Your task to perform on an android device: star an email in the gmail app Image 0: 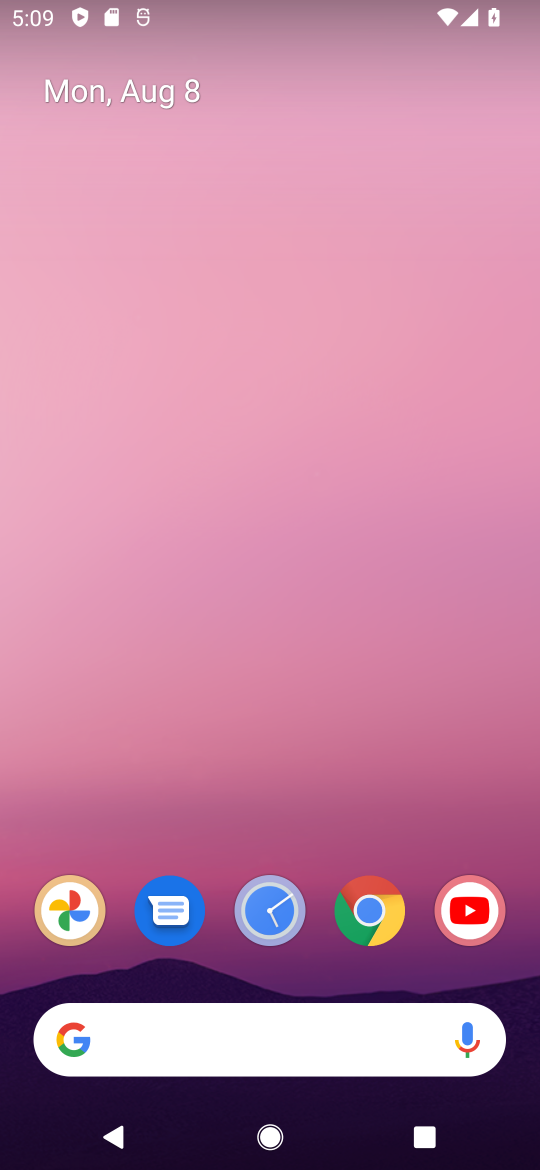
Step 0: drag from (220, 1034) to (229, 442)
Your task to perform on an android device: star an email in the gmail app Image 1: 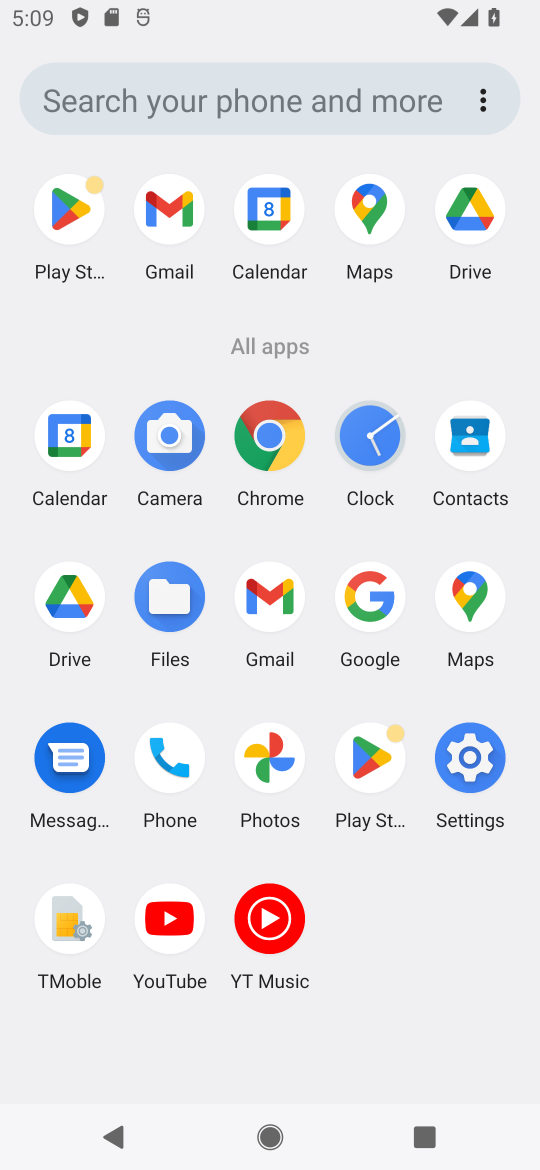
Step 1: click (167, 212)
Your task to perform on an android device: star an email in the gmail app Image 2: 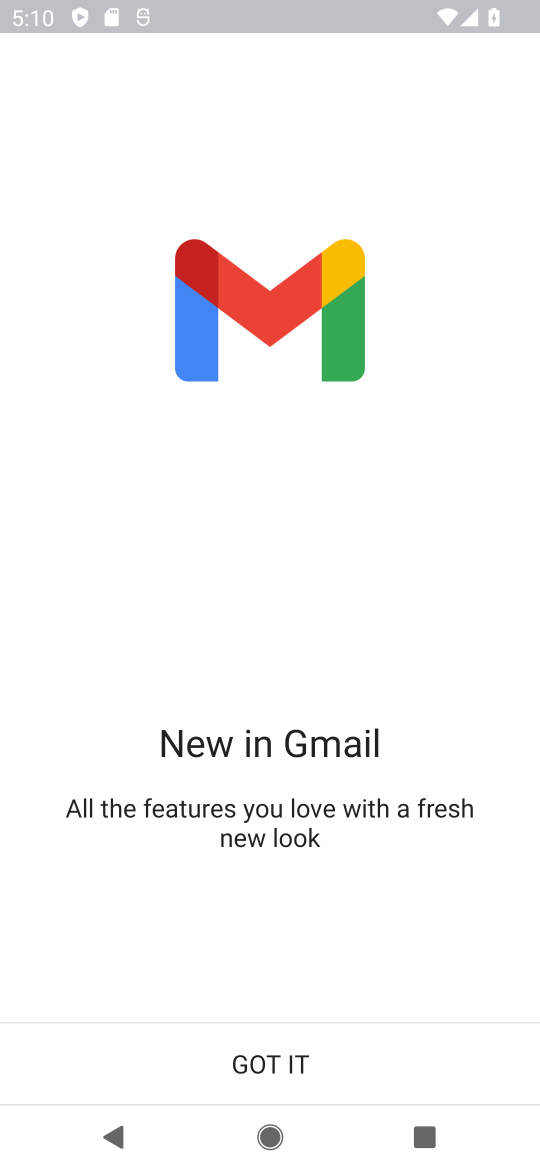
Step 2: click (290, 1059)
Your task to perform on an android device: star an email in the gmail app Image 3: 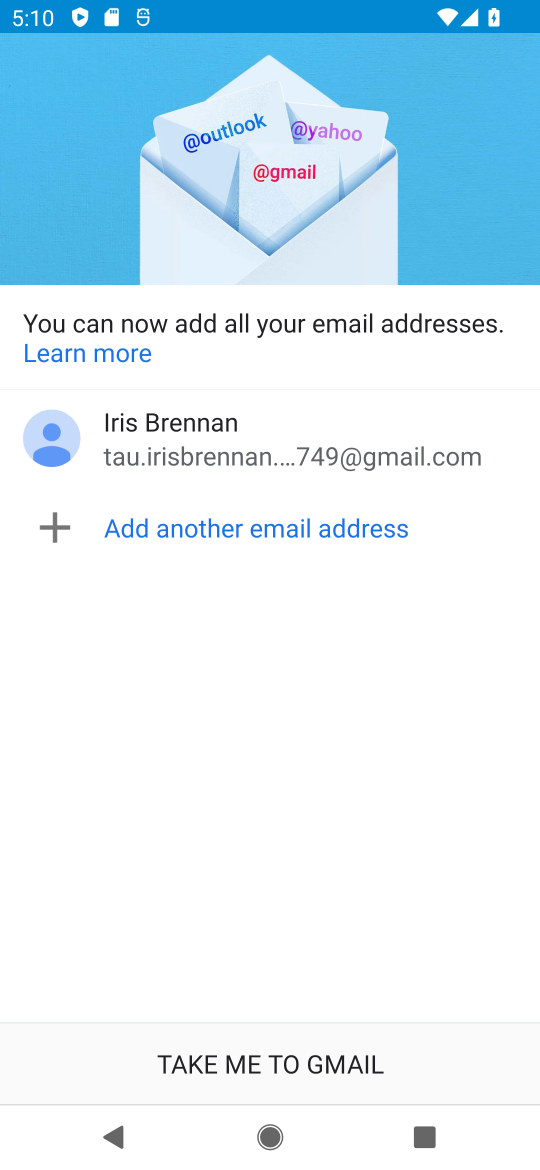
Step 3: click (290, 1059)
Your task to perform on an android device: star an email in the gmail app Image 4: 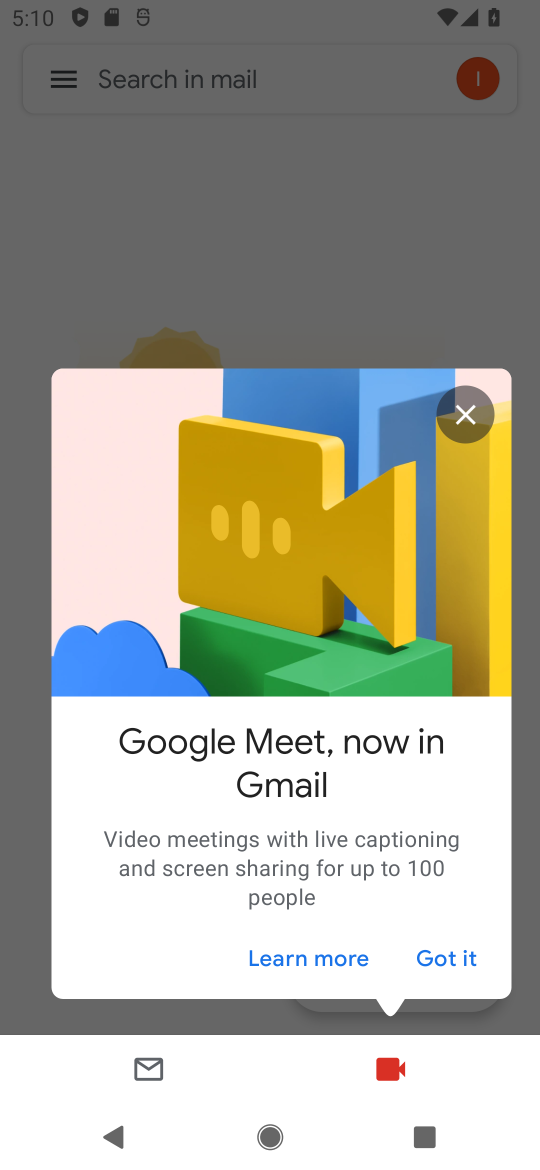
Step 4: click (443, 961)
Your task to perform on an android device: star an email in the gmail app Image 5: 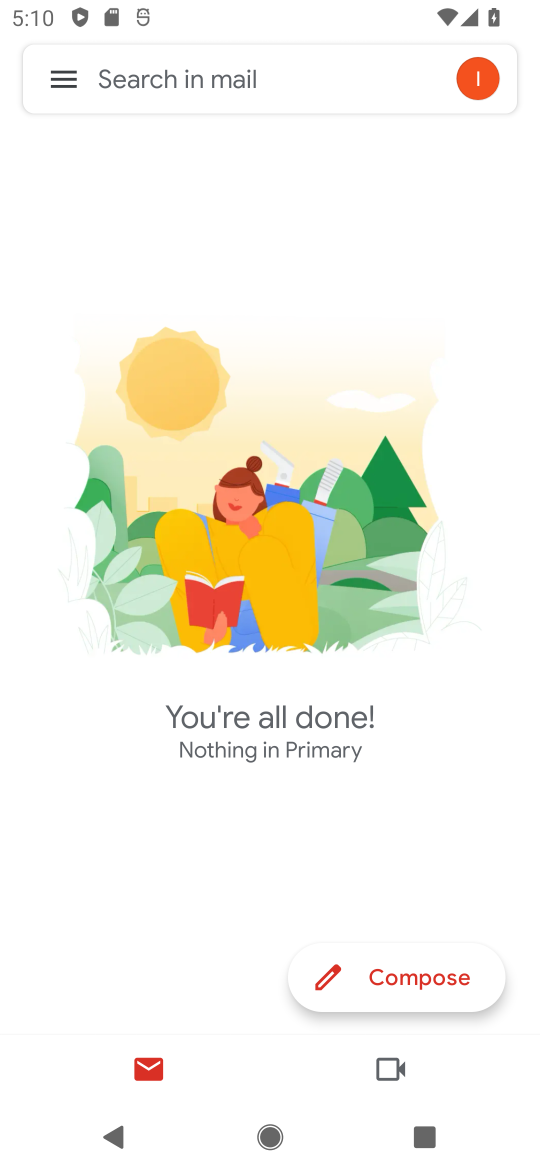
Step 5: click (65, 89)
Your task to perform on an android device: star an email in the gmail app Image 6: 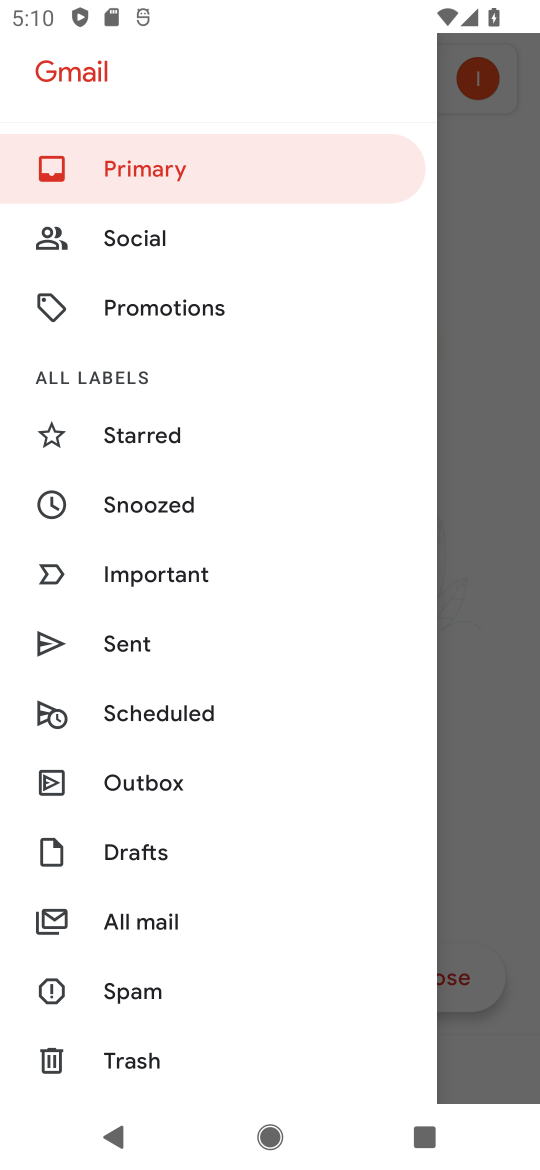
Step 6: click (140, 912)
Your task to perform on an android device: star an email in the gmail app Image 7: 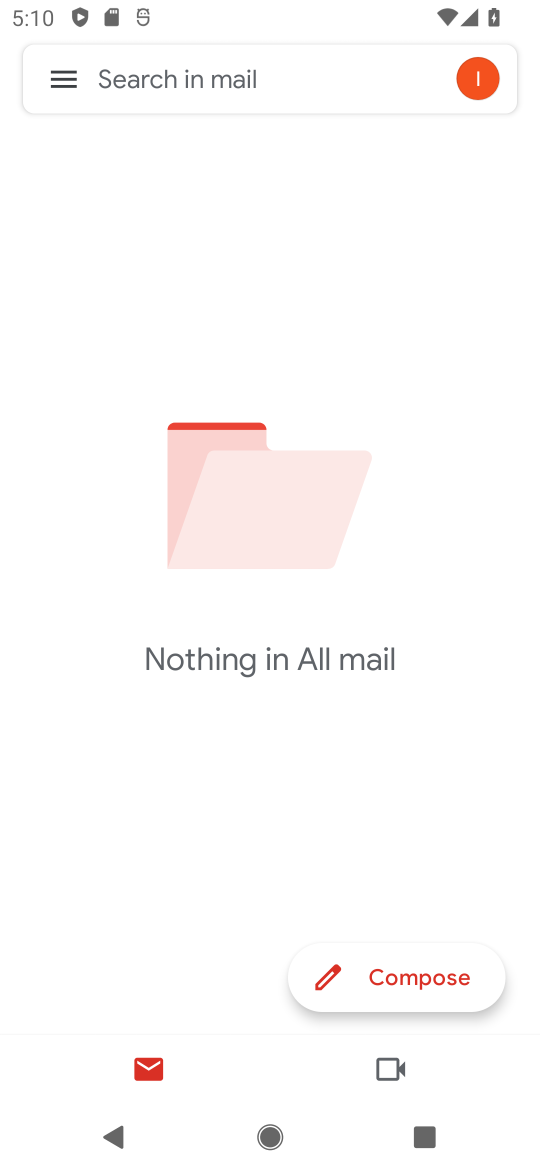
Step 7: click (64, 87)
Your task to perform on an android device: star an email in the gmail app Image 8: 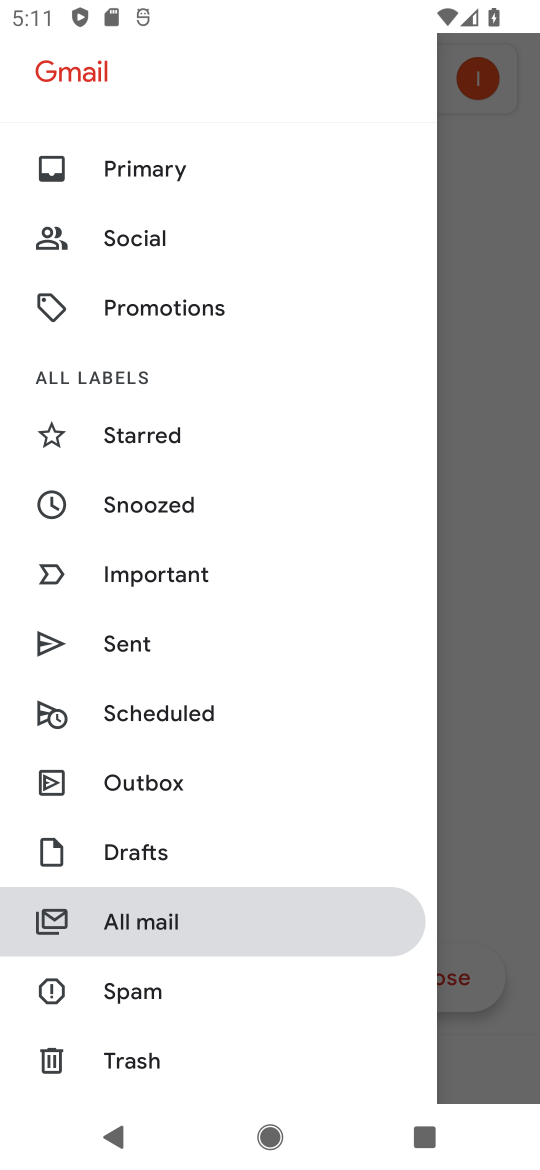
Step 8: task complete